Your task to perform on an android device: move an email to a new category in the gmail app Image 0: 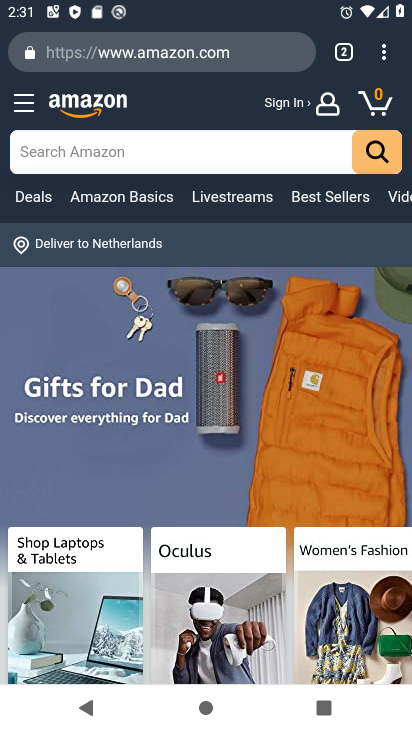
Step 0: press home button
Your task to perform on an android device: move an email to a new category in the gmail app Image 1: 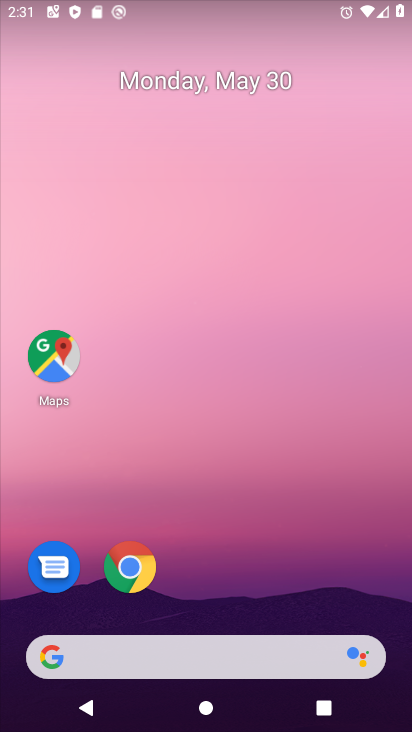
Step 1: drag from (186, 551) to (228, 1)
Your task to perform on an android device: move an email to a new category in the gmail app Image 2: 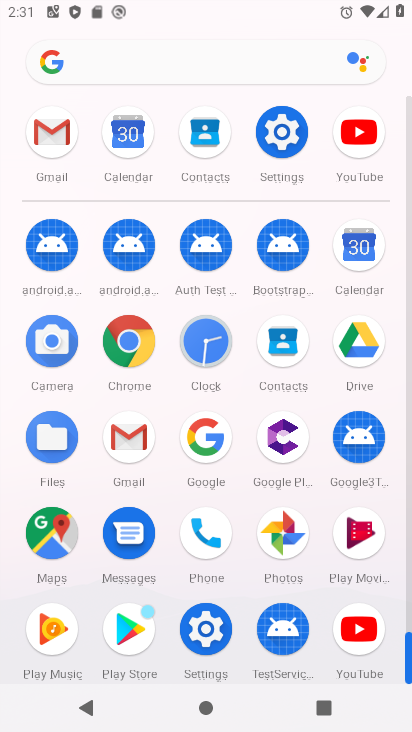
Step 2: click (124, 448)
Your task to perform on an android device: move an email to a new category in the gmail app Image 3: 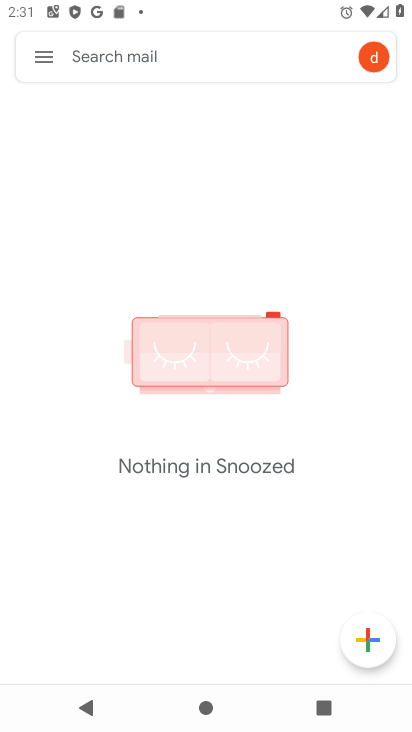
Step 3: click (34, 42)
Your task to perform on an android device: move an email to a new category in the gmail app Image 4: 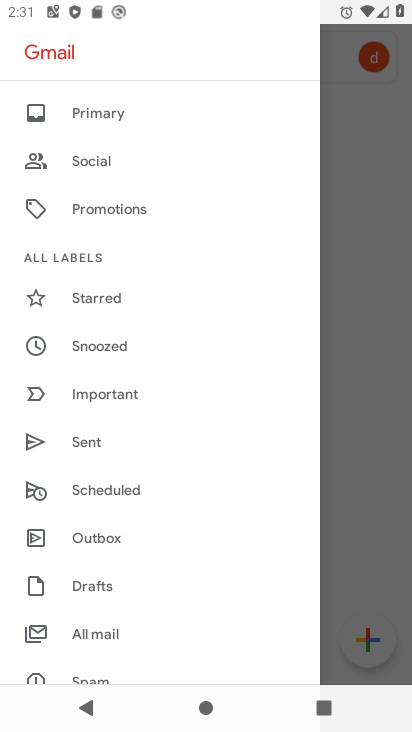
Step 4: click (90, 639)
Your task to perform on an android device: move an email to a new category in the gmail app Image 5: 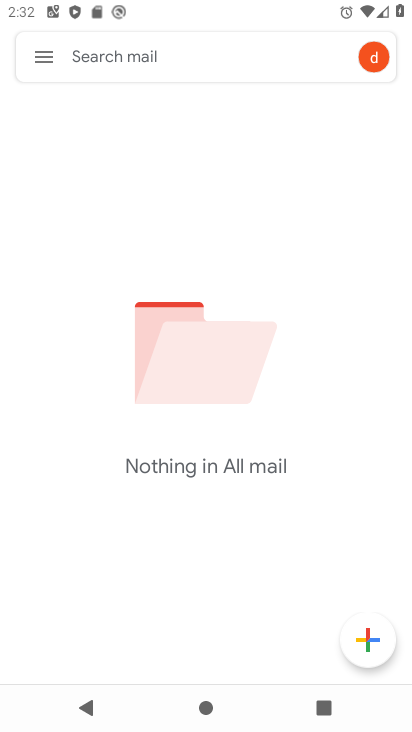
Step 5: task complete